Your task to perform on an android device: delete the emails in spam in the gmail app Image 0: 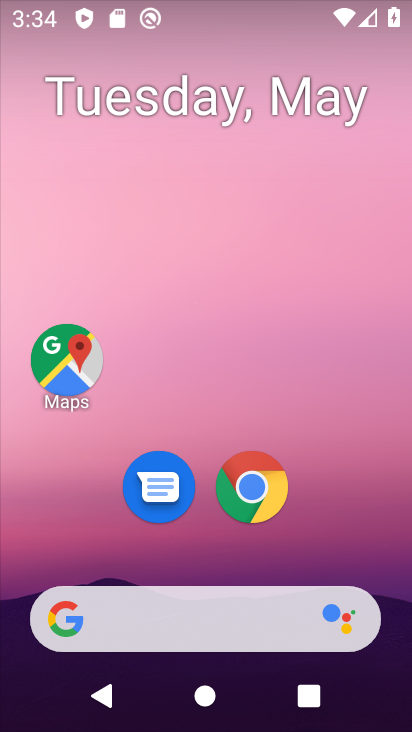
Step 0: drag from (227, 511) to (248, 0)
Your task to perform on an android device: delete the emails in spam in the gmail app Image 1: 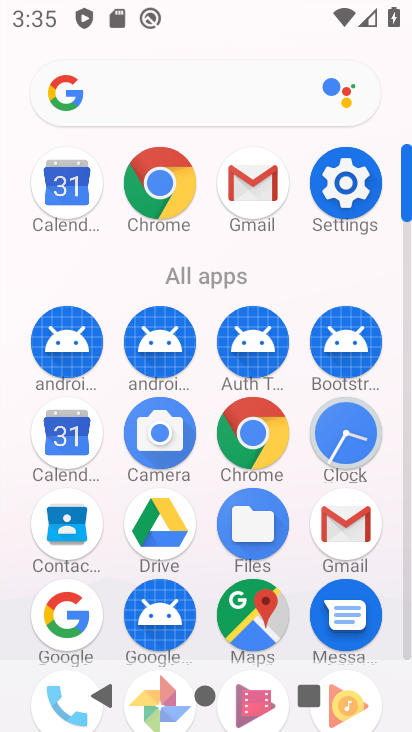
Step 1: click (372, 522)
Your task to perform on an android device: delete the emails in spam in the gmail app Image 2: 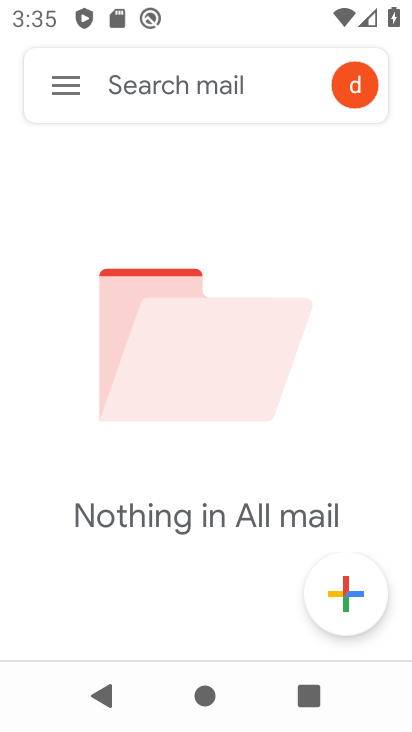
Step 2: click (44, 70)
Your task to perform on an android device: delete the emails in spam in the gmail app Image 3: 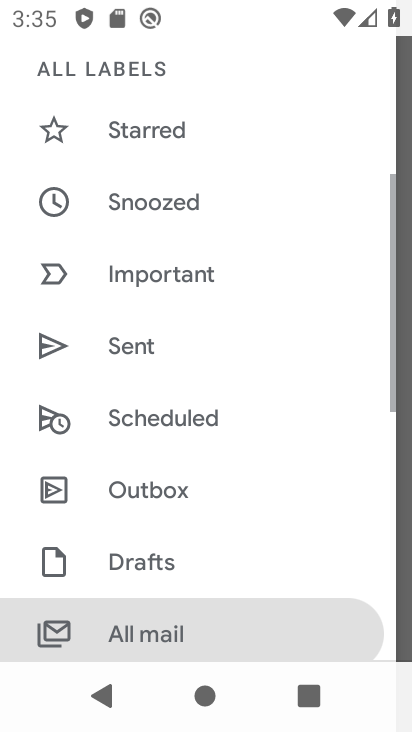
Step 3: drag from (163, 547) to (239, 193)
Your task to perform on an android device: delete the emails in spam in the gmail app Image 4: 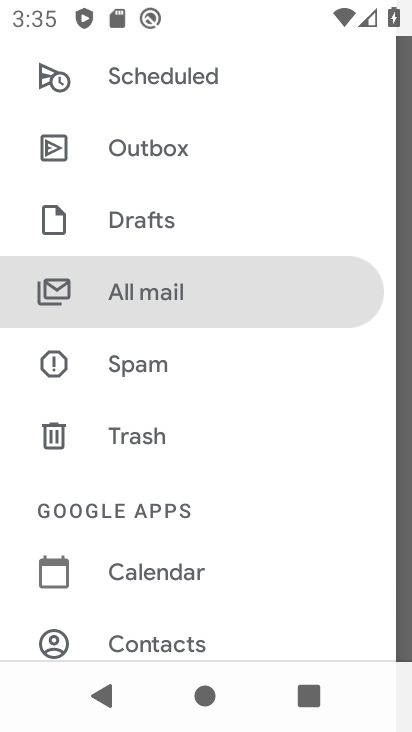
Step 4: click (150, 368)
Your task to perform on an android device: delete the emails in spam in the gmail app Image 5: 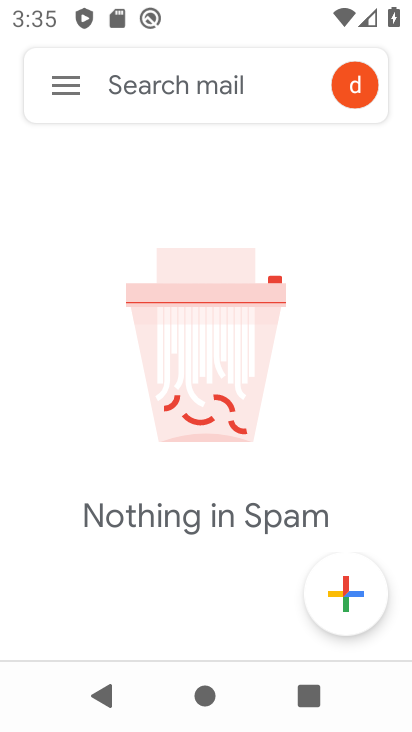
Step 5: task complete